Your task to perform on an android device: Go to sound settings Image 0: 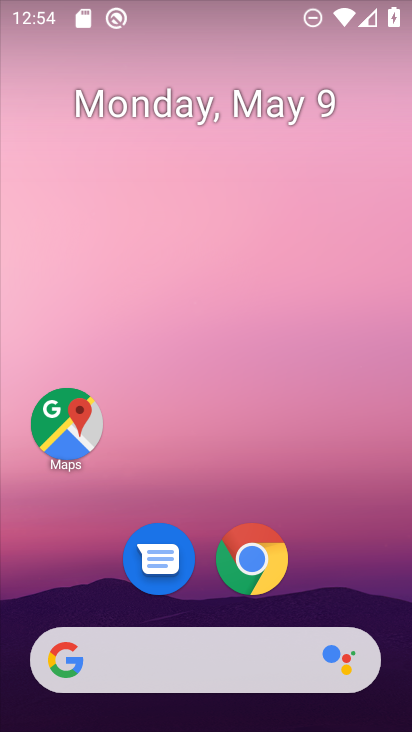
Step 0: drag from (322, 569) to (216, 290)
Your task to perform on an android device: Go to sound settings Image 1: 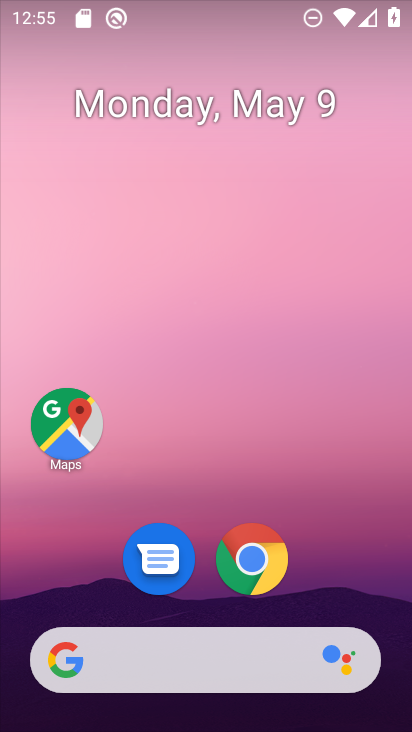
Step 1: drag from (336, 361) to (308, 115)
Your task to perform on an android device: Go to sound settings Image 2: 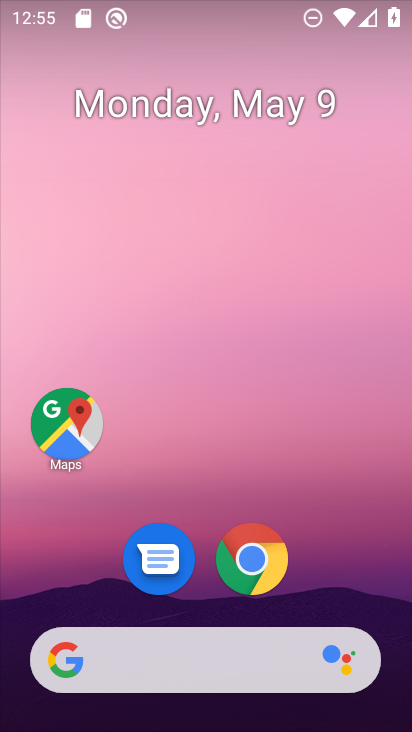
Step 2: drag from (350, 545) to (397, 579)
Your task to perform on an android device: Go to sound settings Image 3: 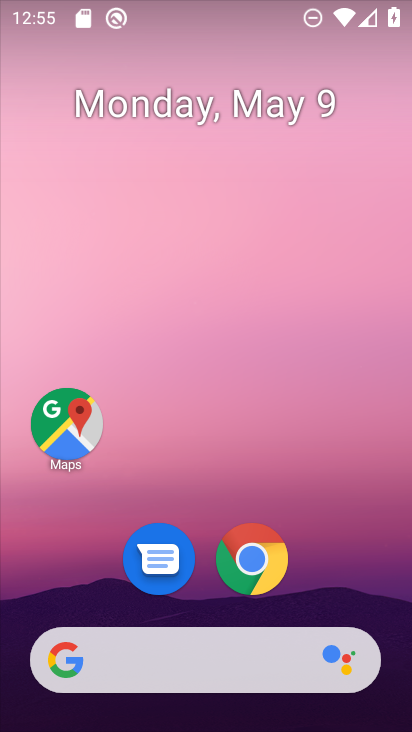
Step 3: drag from (190, 550) to (240, 189)
Your task to perform on an android device: Go to sound settings Image 4: 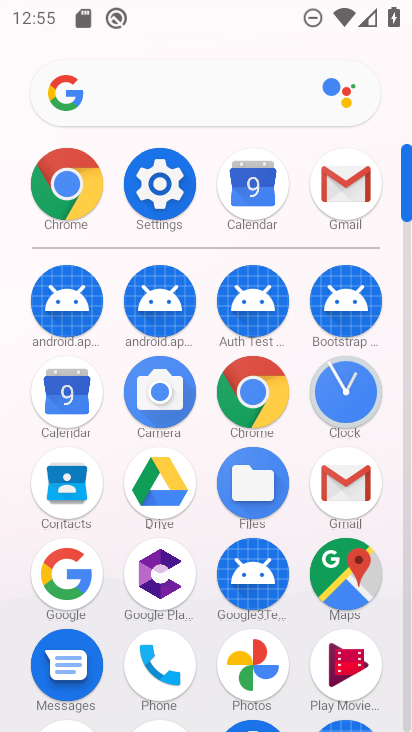
Step 4: drag from (250, 490) to (254, 175)
Your task to perform on an android device: Go to sound settings Image 5: 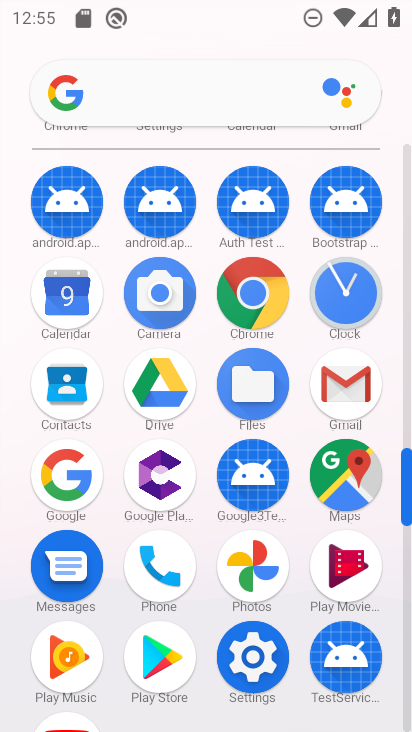
Step 5: drag from (195, 199) to (230, 677)
Your task to perform on an android device: Go to sound settings Image 6: 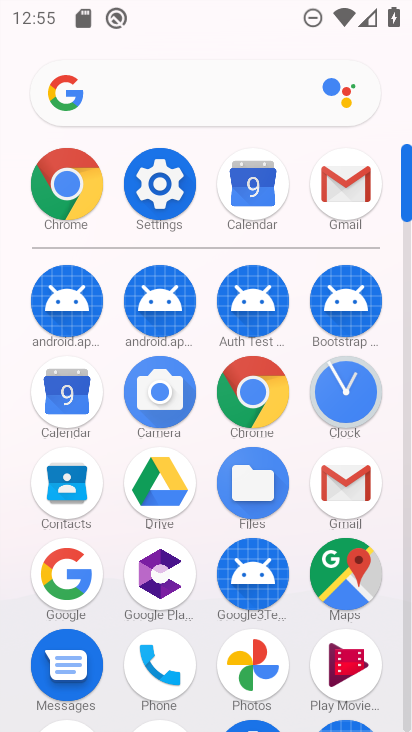
Step 6: click (158, 179)
Your task to perform on an android device: Go to sound settings Image 7: 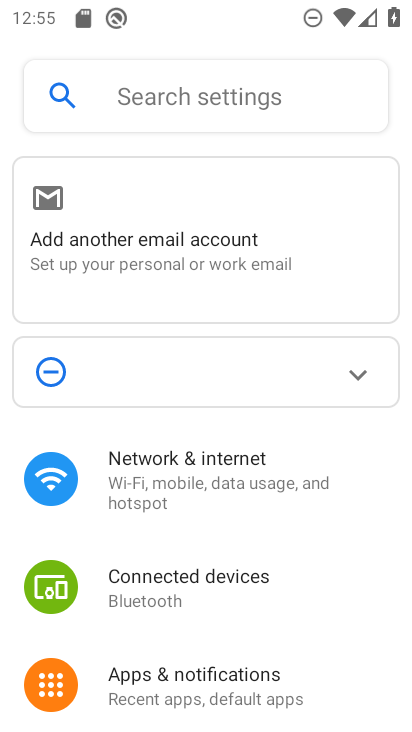
Step 7: drag from (214, 622) to (263, 416)
Your task to perform on an android device: Go to sound settings Image 8: 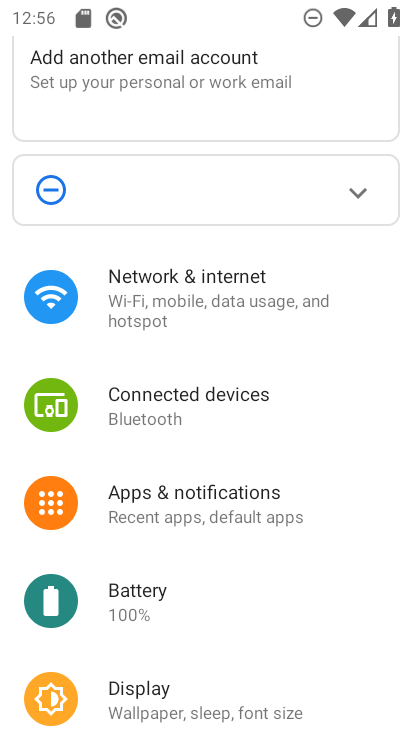
Step 8: click (142, 707)
Your task to perform on an android device: Go to sound settings Image 9: 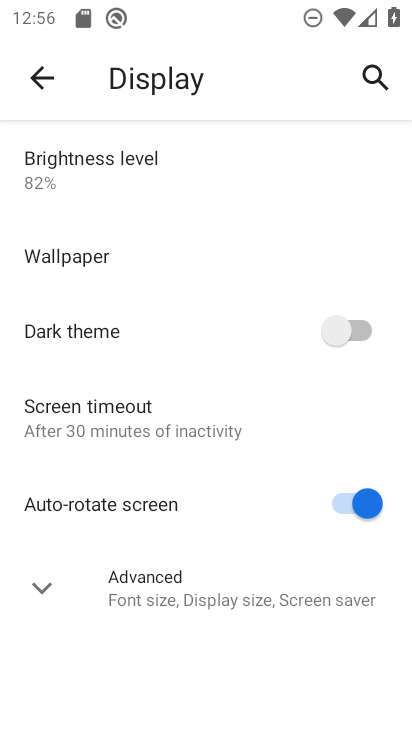
Step 9: task complete